Your task to perform on an android device: Go to eBay Image 0: 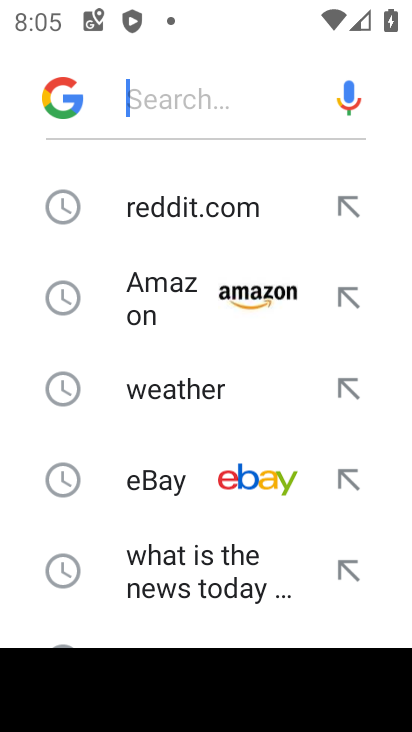
Step 0: type "eBay"
Your task to perform on an android device: Go to eBay Image 1: 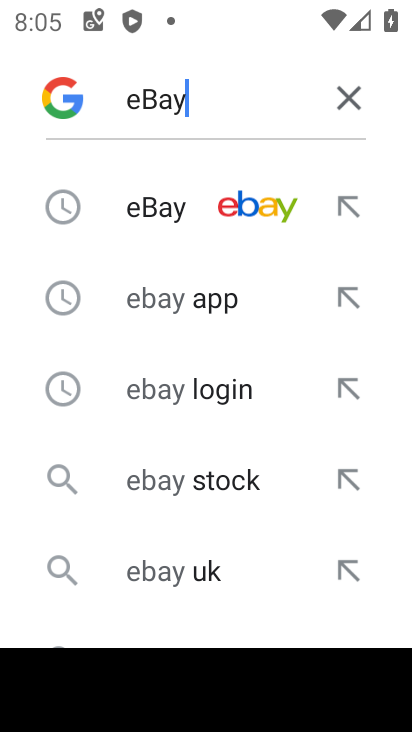
Step 1: click (155, 204)
Your task to perform on an android device: Go to eBay Image 2: 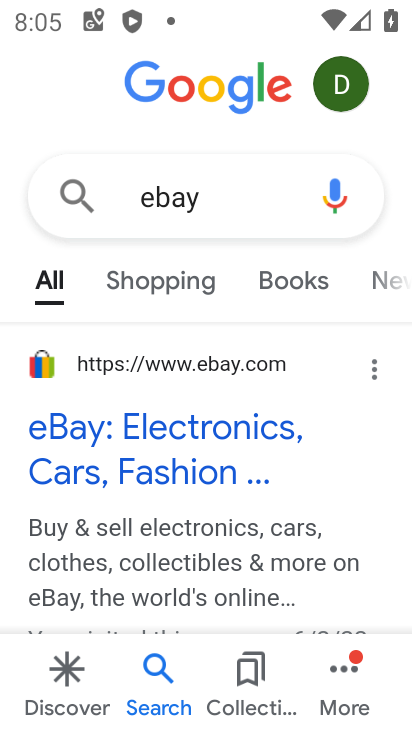
Step 2: task complete